Your task to perform on an android device: turn off improve location accuracy Image 0: 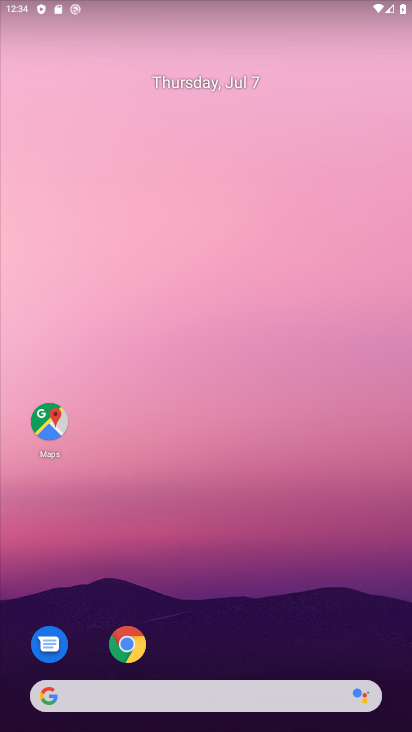
Step 0: drag from (266, 630) to (177, 17)
Your task to perform on an android device: turn off improve location accuracy Image 1: 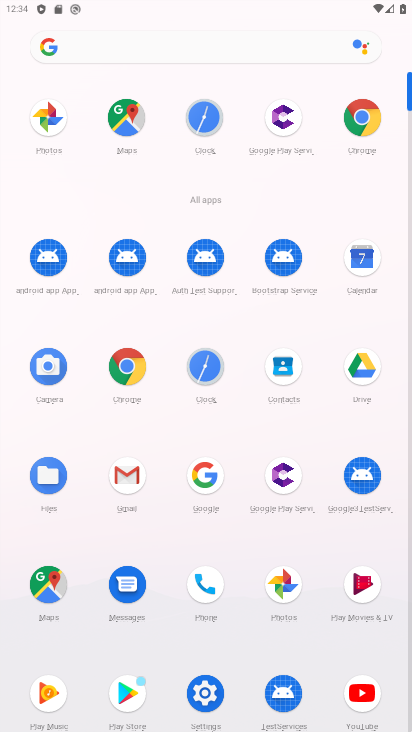
Step 1: click (215, 686)
Your task to perform on an android device: turn off improve location accuracy Image 2: 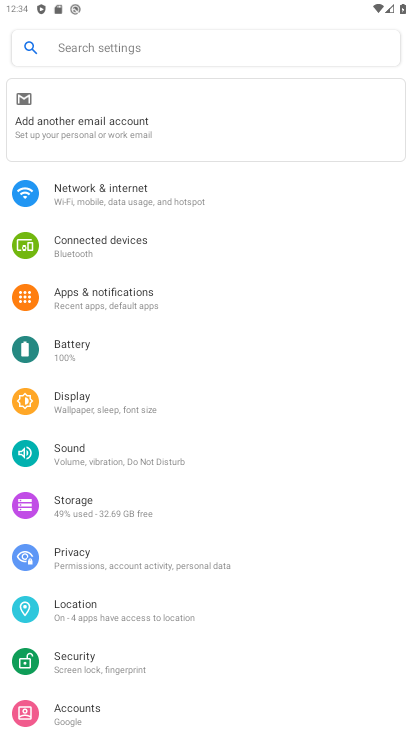
Step 2: click (194, 622)
Your task to perform on an android device: turn off improve location accuracy Image 3: 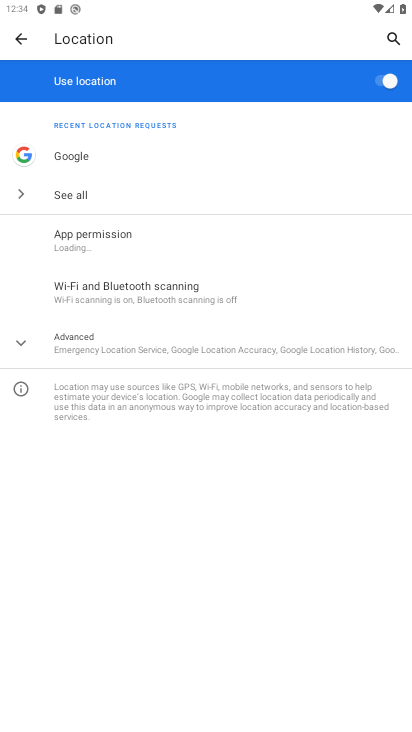
Step 3: click (233, 343)
Your task to perform on an android device: turn off improve location accuracy Image 4: 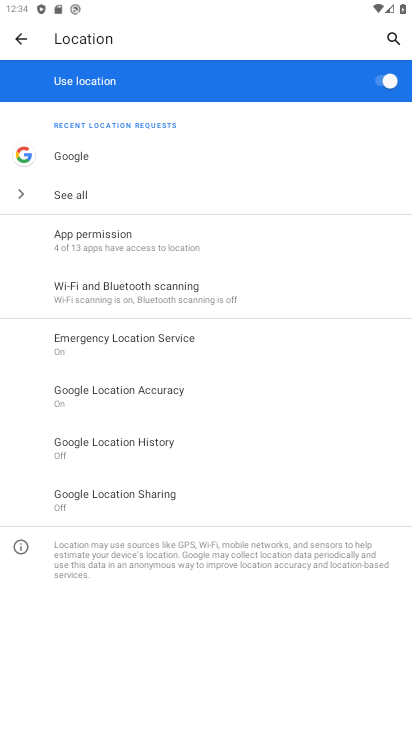
Step 4: click (185, 404)
Your task to perform on an android device: turn off improve location accuracy Image 5: 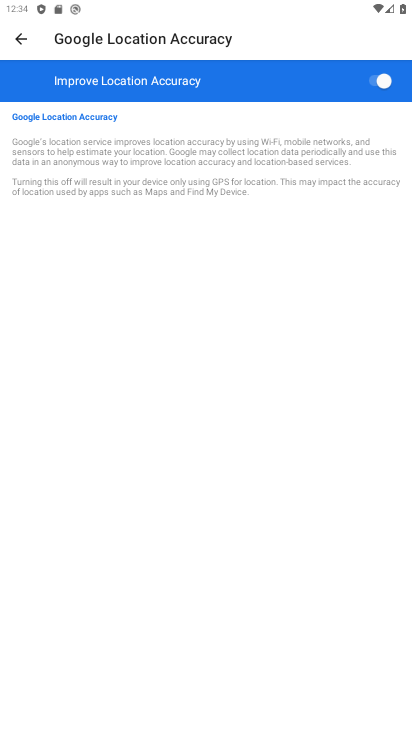
Step 5: click (379, 87)
Your task to perform on an android device: turn off improve location accuracy Image 6: 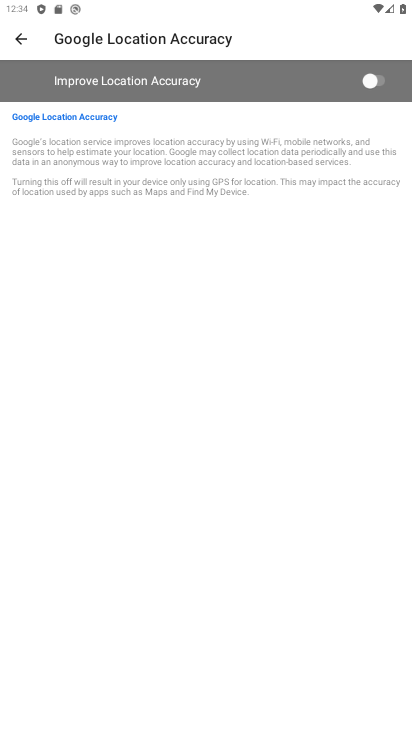
Step 6: task complete